Your task to perform on an android device: turn off wifi Image 0: 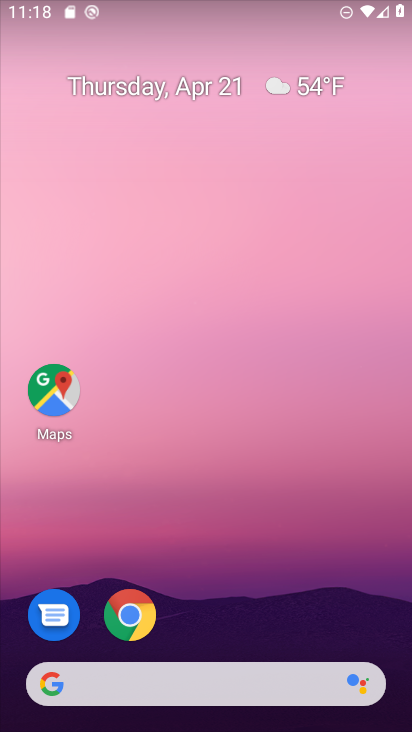
Step 0: drag from (240, 647) to (271, 163)
Your task to perform on an android device: turn off wifi Image 1: 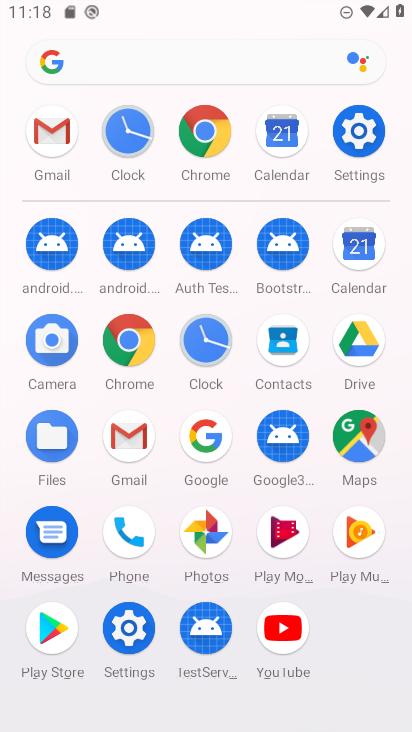
Step 1: click (352, 143)
Your task to perform on an android device: turn off wifi Image 2: 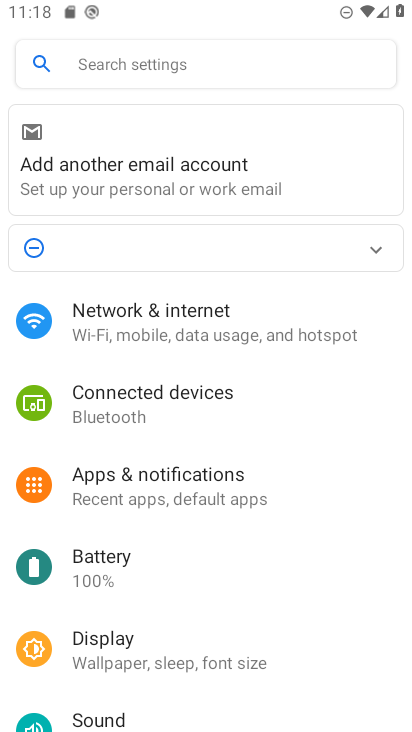
Step 2: click (307, 318)
Your task to perform on an android device: turn off wifi Image 3: 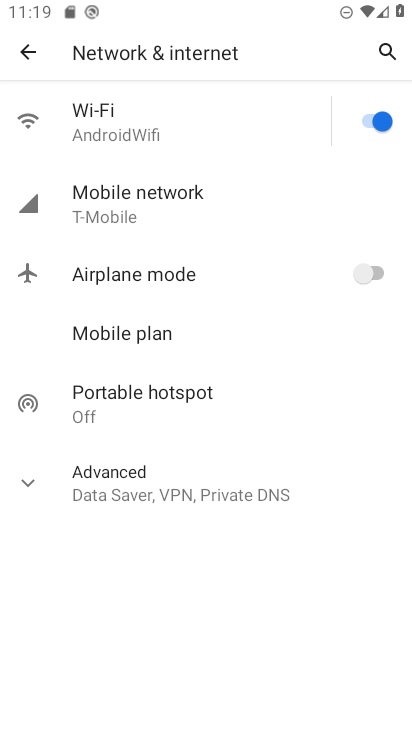
Step 3: click (144, 133)
Your task to perform on an android device: turn off wifi Image 4: 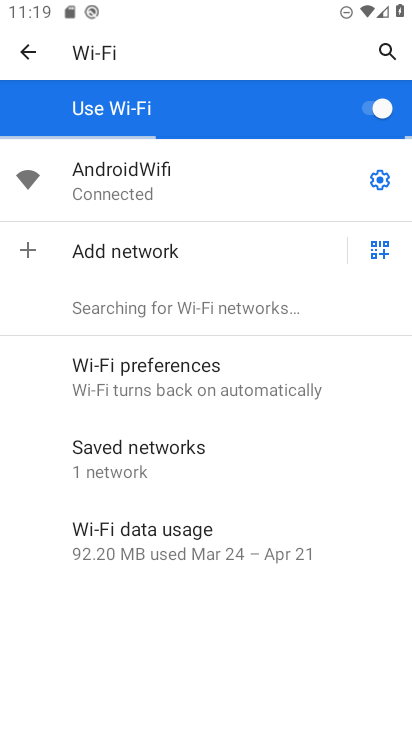
Step 4: click (361, 109)
Your task to perform on an android device: turn off wifi Image 5: 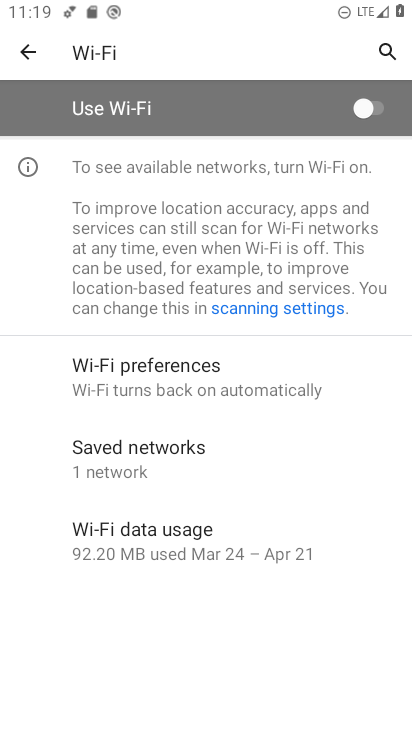
Step 5: task complete